Your task to perform on an android device: check google app version Image 0: 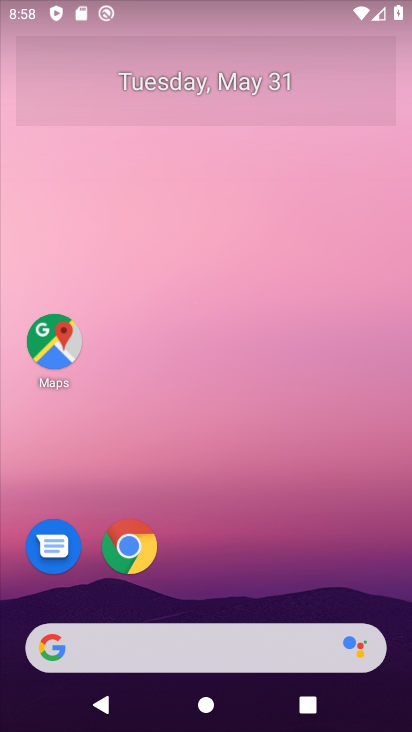
Step 0: click (145, 648)
Your task to perform on an android device: check google app version Image 1: 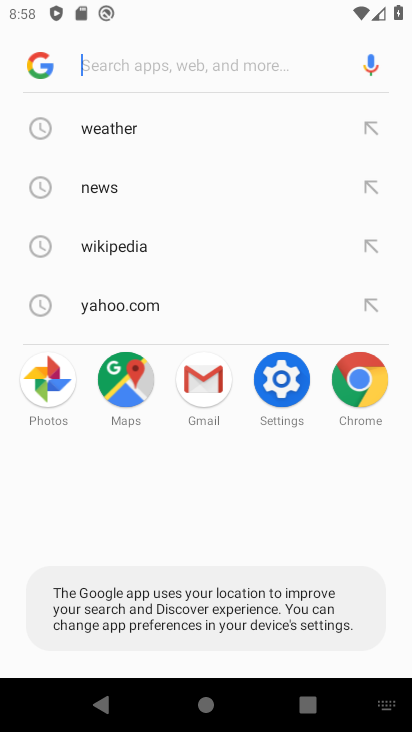
Step 1: click (32, 44)
Your task to perform on an android device: check google app version Image 2: 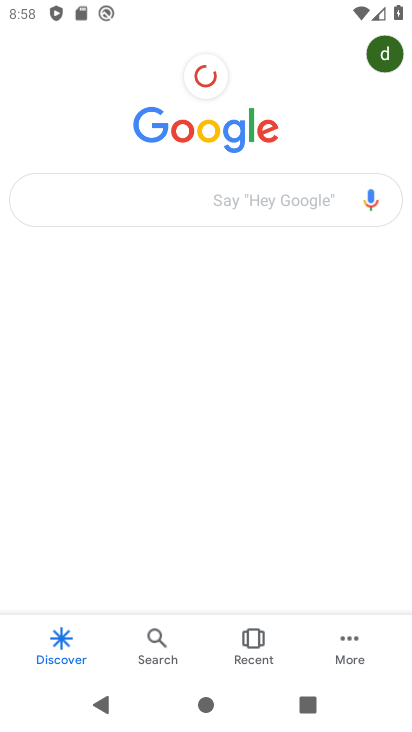
Step 2: click (346, 639)
Your task to perform on an android device: check google app version Image 3: 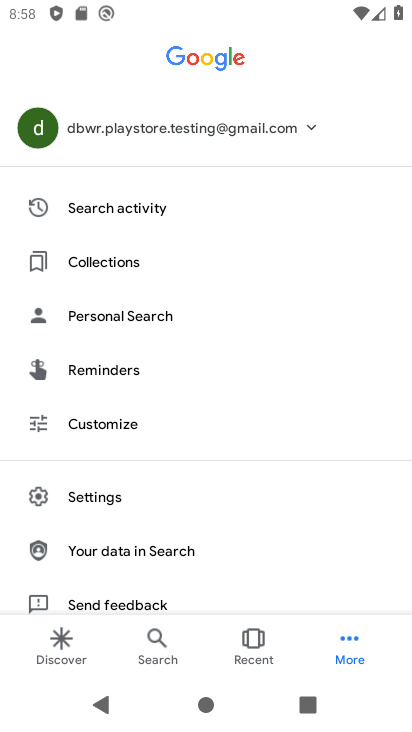
Step 3: click (87, 502)
Your task to perform on an android device: check google app version Image 4: 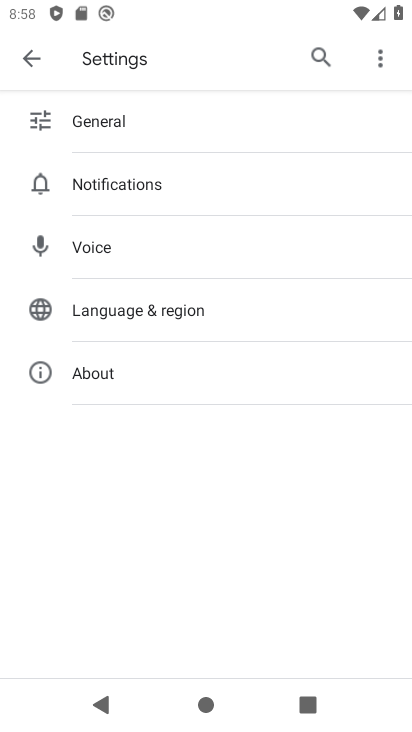
Step 4: click (126, 364)
Your task to perform on an android device: check google app version Image 5: 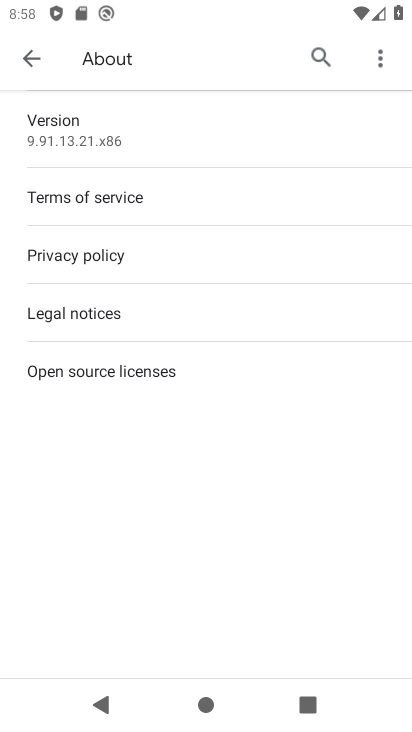
Step 5: task complete